Your task to perform on an android device: Go to settings Image 0: 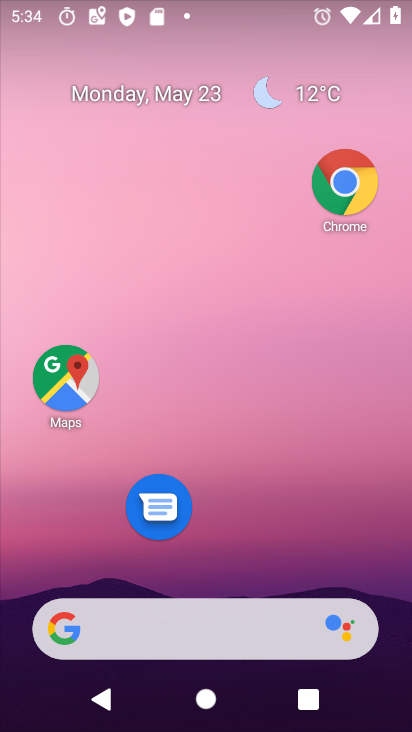
Step 0: drag from (176, 586) to (380, 67)
Your task to perform on an android device: Go to settings Image 1: 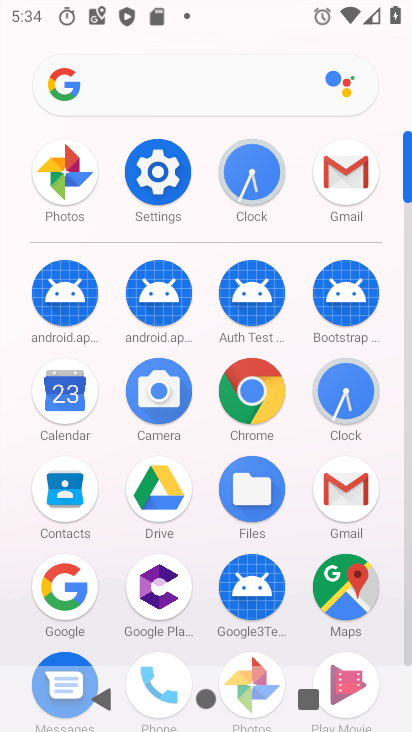
Step 1: click (145, 182)
Your task to perform on an android device: Go to settings Image 2: 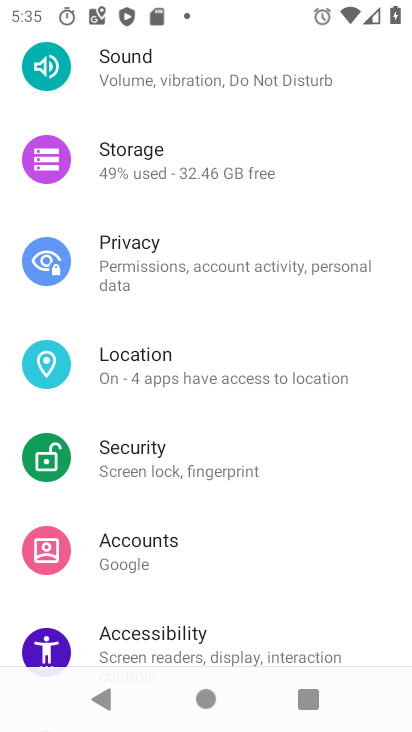
Step 2: task complete